Your task to perform on an android device: Open the calendar and show me this week's events? Image 0: 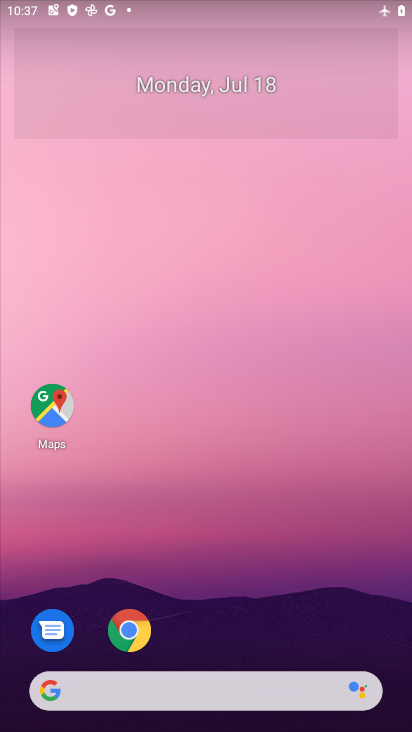
Step 0: drag from (382, 629) to (217, 62)
Your task to perform on an android device: Open the calendar and show me this week's events? Image 1: 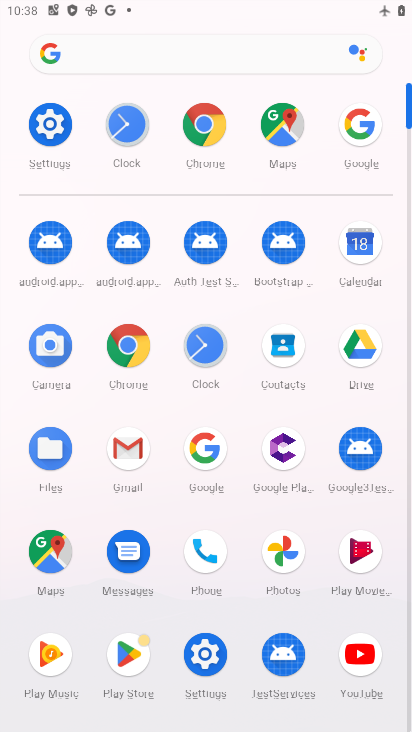
Step 1: click (372, 206)
Your task to perform on an android device: Open the calendar and show me this week's events? Image 2: 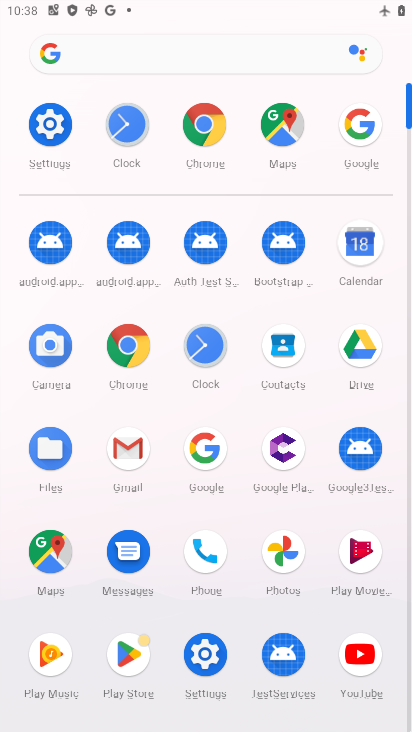
Step 2: click (372, 249)
Your task to perform on an android device: Open the calendar and show me this week's events? Image 3: 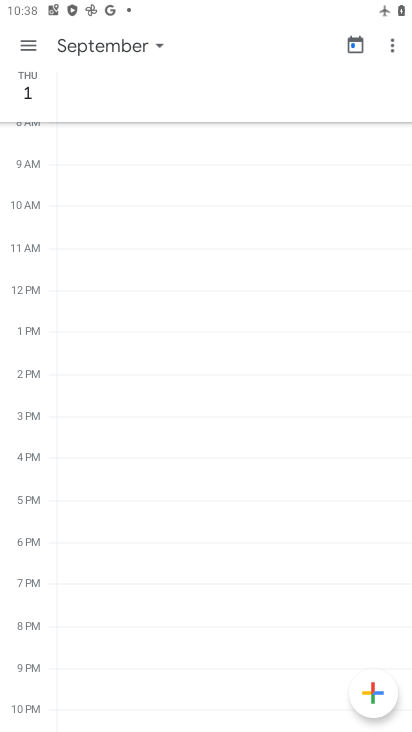
Step 3: task complete